Your task to perform on an android device: turn on the 24-hour format for clock Image 0: 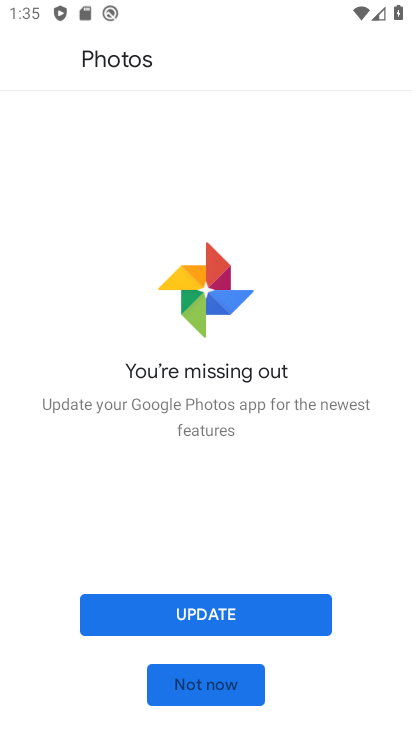
Step 0: press home button
Your task to perform on an android device: turn on the 24-hour format for clock Image 1: 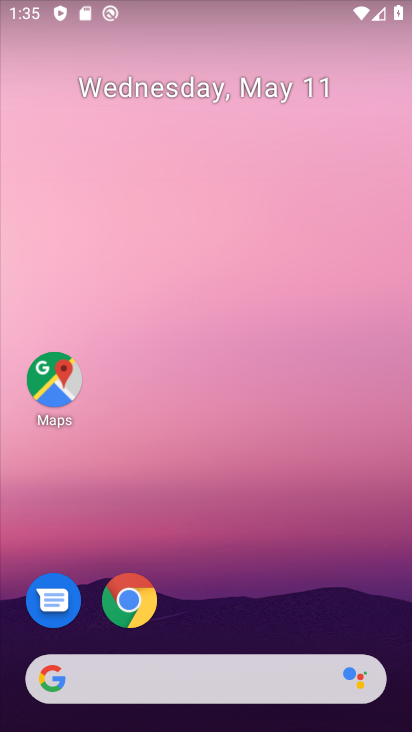
Step 1: drag from (269, 432) to (297, 237)
Your task to perform on an android device: turn on the 24-hour format for clock Image 2: 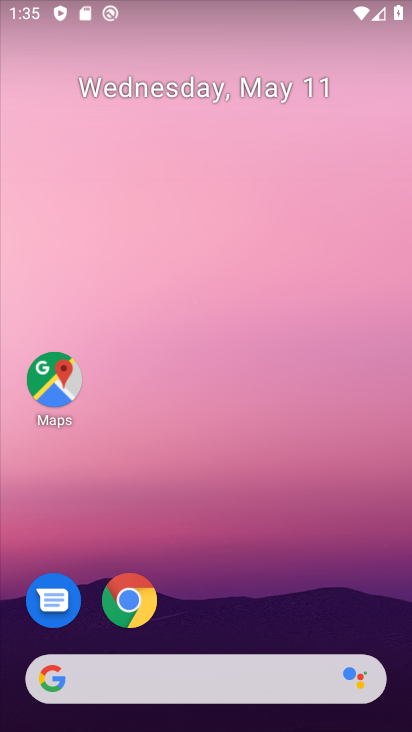
Step 2: drag from (264, 498) to (306, 237)
Your task to perform on an android device: turn on the 24-hour format for clock Image 3: 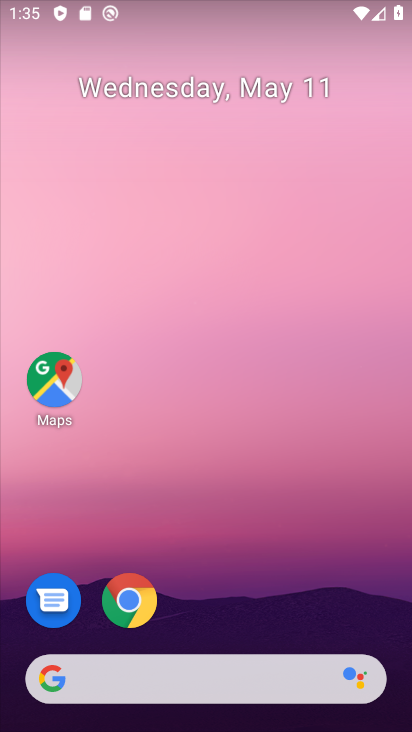
Step 3: drag from (246, 655) to (272, 249)
Your task to perform on an android device: turn on the 24-hour format for clock Image 4: 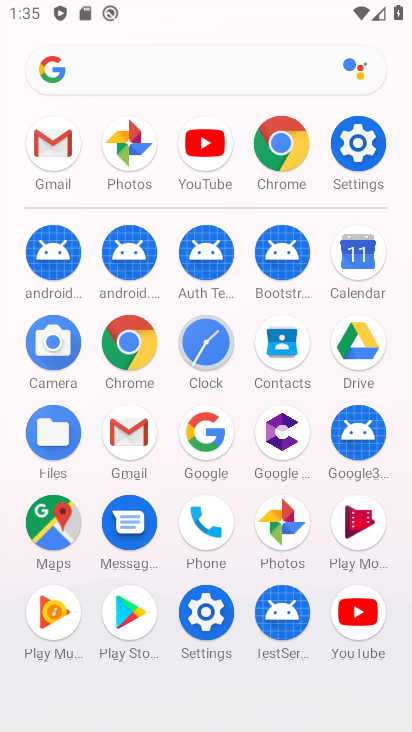
Step 4: click (196, 338)
Your task to perform on an android device: turn on the 24-hour format for clock Image 5: 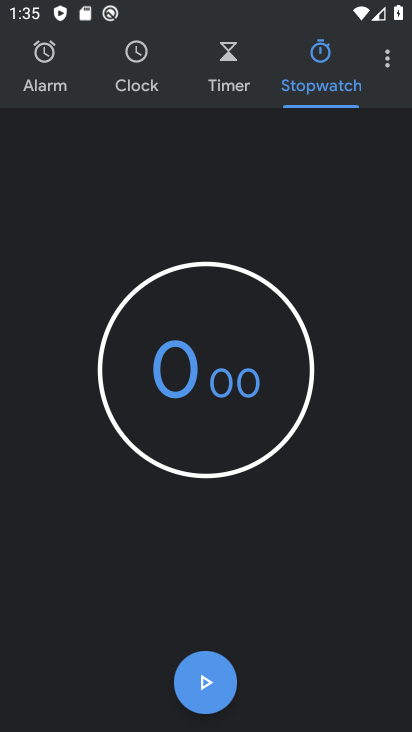
Step 5: click (373, 59)
Your task to perform on an android device: turn on the 24-hour format for clock Image 6: 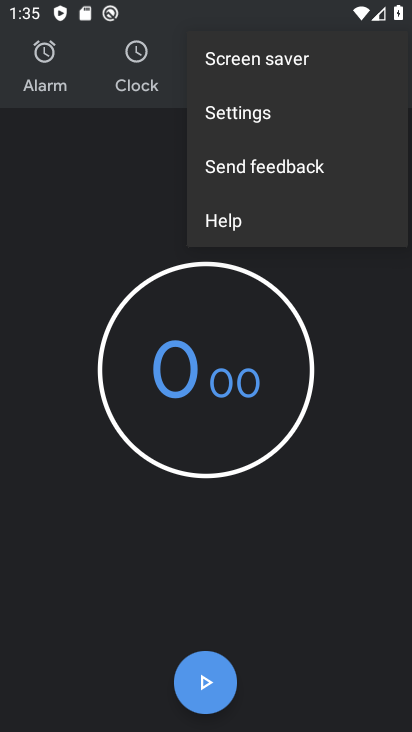
Step 6: click (262, 102)
Your task to perform on an android device: turn on the 24-hour format for clock Image 7: 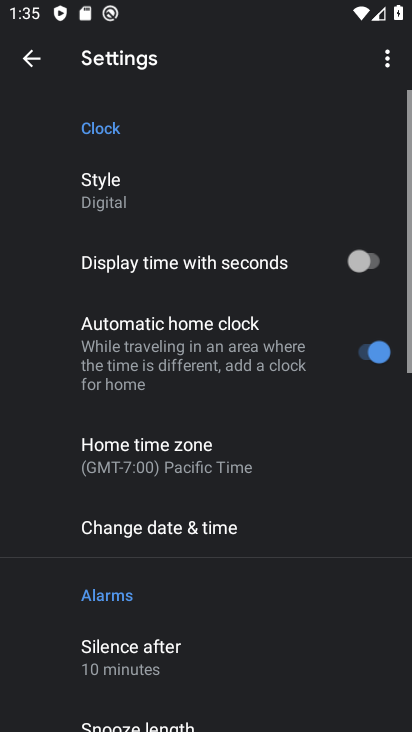
Step 7: click (206, 528)
Your task to perform on an android device: turn on the 24-hour format for clock Image 8: 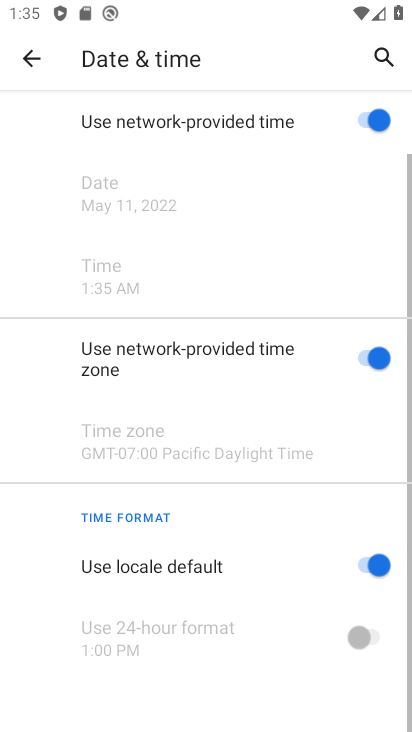
Step 8: drag from (281, 527) to (326, 217)
Your task to perform on an android device: turn on the 24-hour format for clock Image 9: 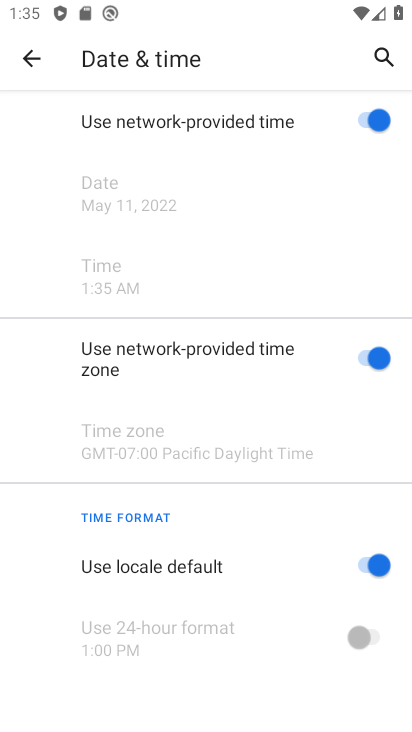
Step 9: click (376, 570)
Your task to perform on an android device: turn on the 24-hour format for clock Image 10: 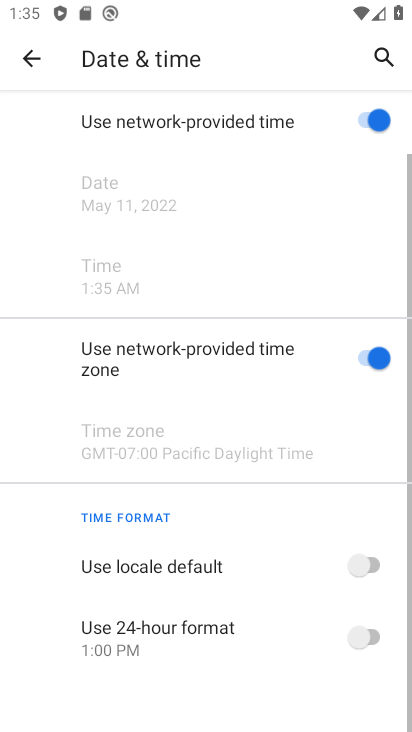
Step 10: click (359, 633)
Your task to perform on an android device: turn on the 24-hour format for clock Image 11: 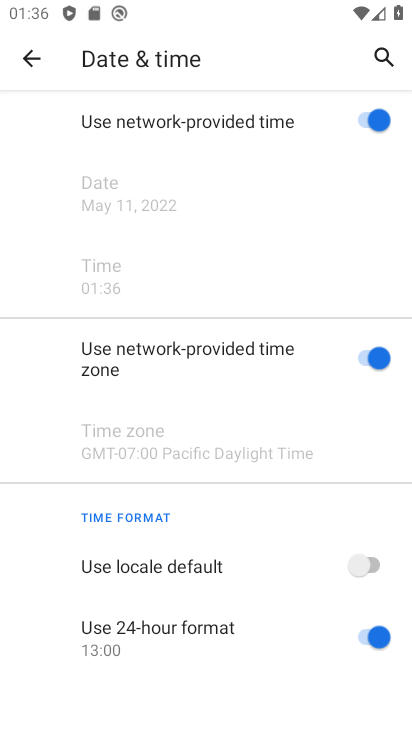
Step 11: task complete